Your task to perform on an android device: Go to privacy settings Image 0: 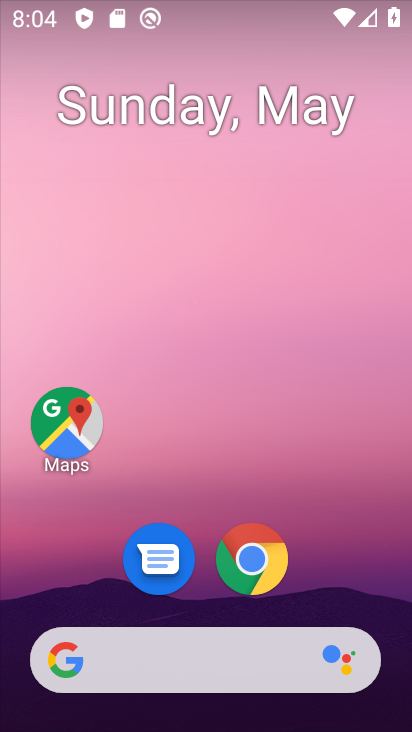
Step 0: drag from (323, 578) to (331, 120)
Your task to perform on an android device: Go to privacy settings Image 1: 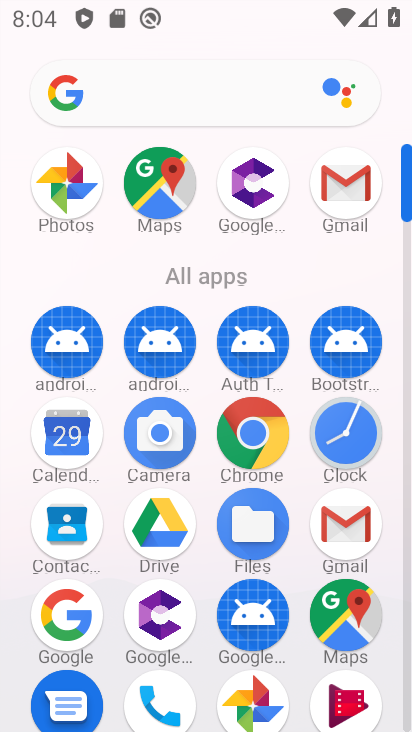
Step 1: drag from (200, 574) to (208, 178)
Your task to perform on an android device: Go to privacy settings Image 2: 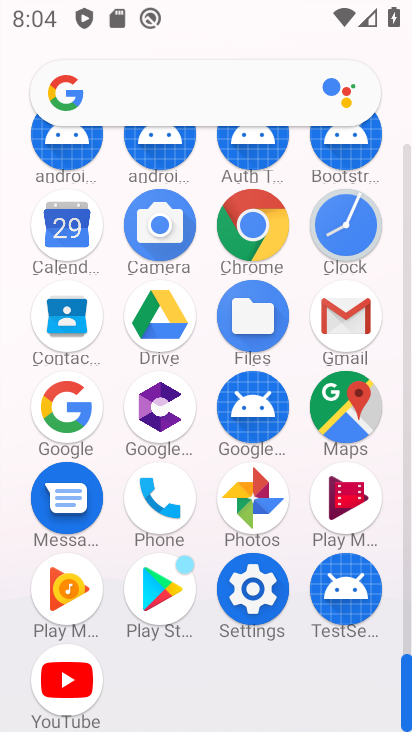
Step 2: drag from (252, 589) to (99, 229)
Your task to perform on an android device: Go to privacy settings Image 3: 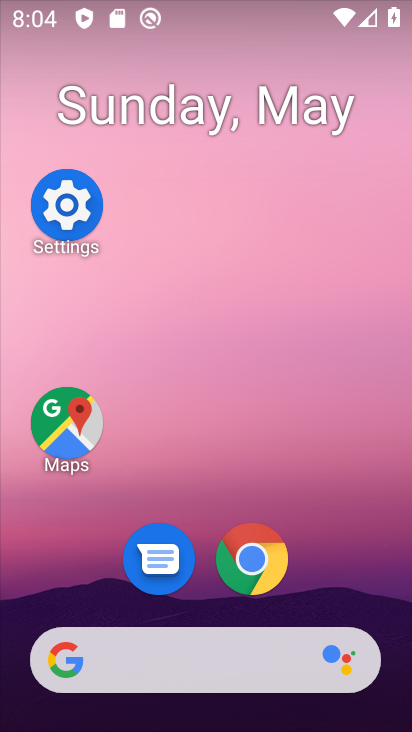
Step 3: click (93, 222)
Your task to perform on an android device: Go to privacy settings Image 4: 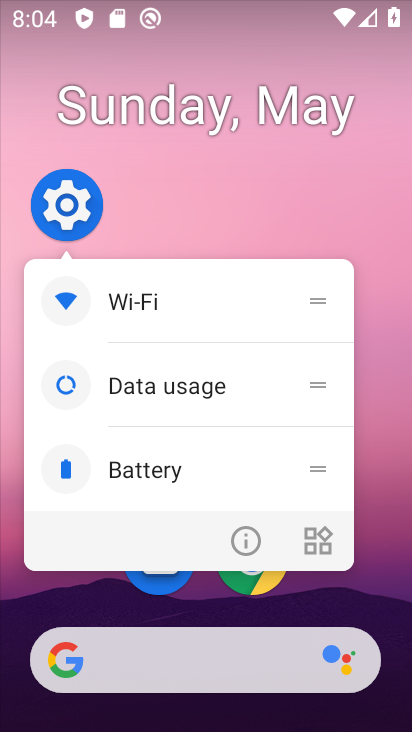
Step 4: click (97, 223)
Your task to perform on an android device: Go to privacy settings Image 5: 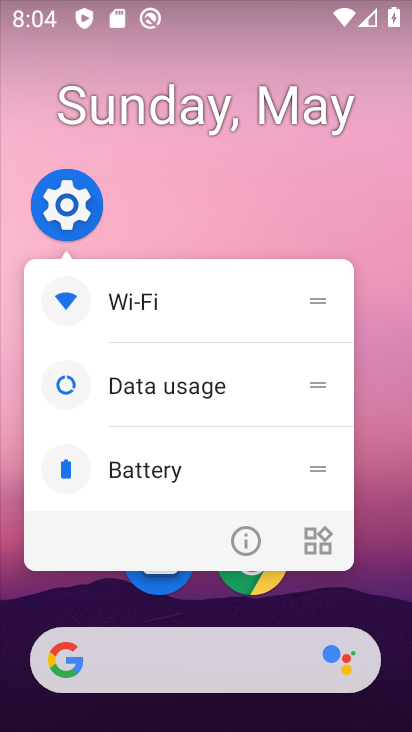
Step 5: click (78, 194)
Your task to perform on an android device: Go to privacy settings Image 6: 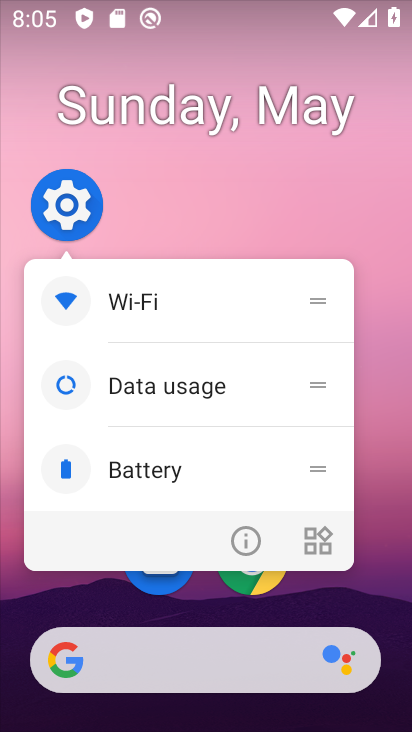
Step 6: click (69, 200)
Your task to perform on an android device: Go to privacy settings Image 7: 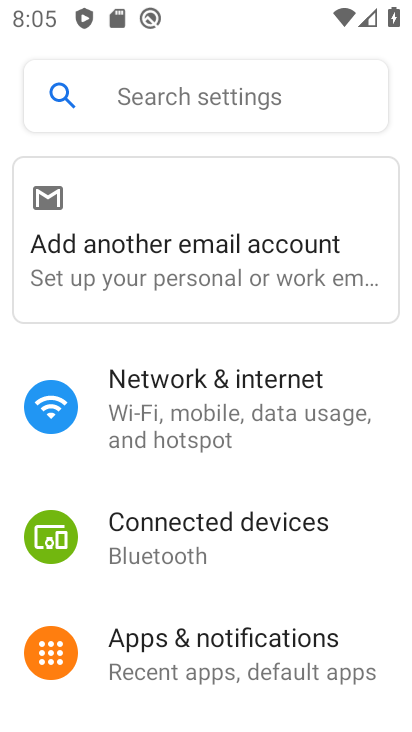
Step 7: drag from (260, 627) to (220, 323)
Your task to perform on an android device: Go to privacy settings Image 8: 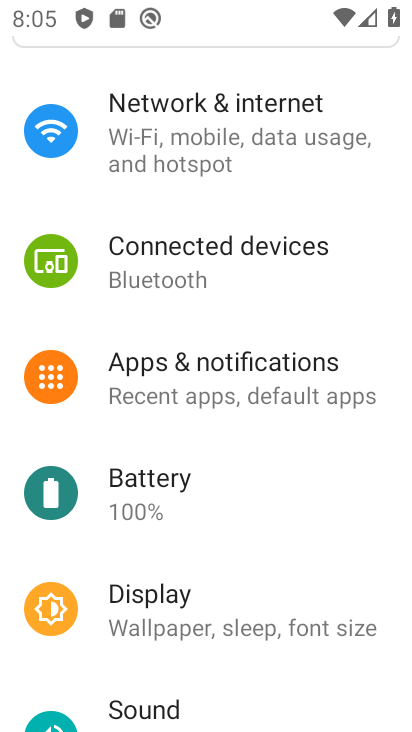
Step 8: drag from (194, 594) to (192, 191)
Your task to perform on an android device: Go to privacy settings Image 9: 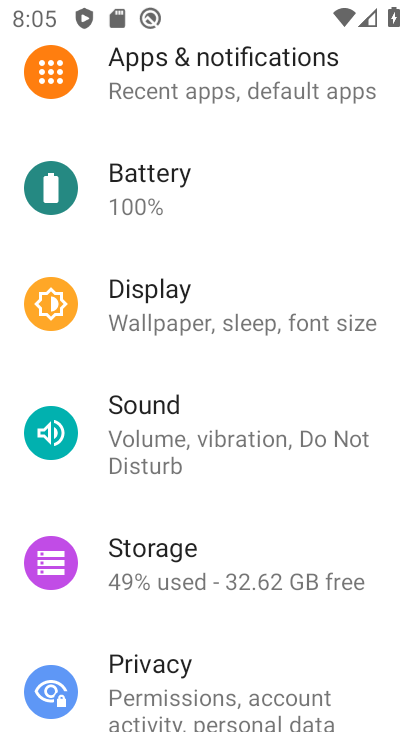
Step 9: drag from (201, 538) to (202, 199)
Your task to perform on an android device: Go to privacy settings Image 10: 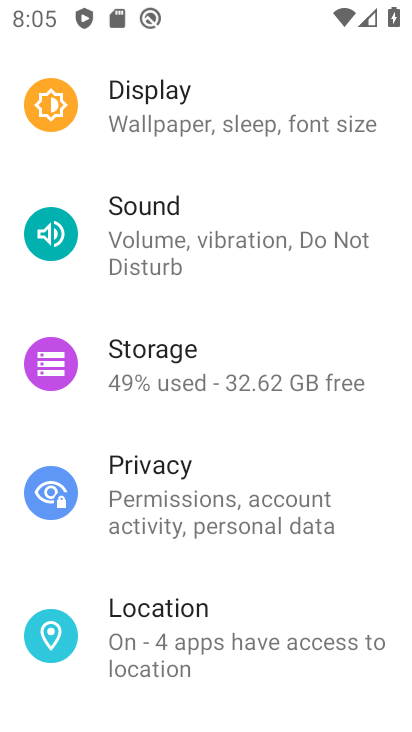
Step 10: click (218, 482)
Your task to perform on an android device: Go to privacy settings Image 11: 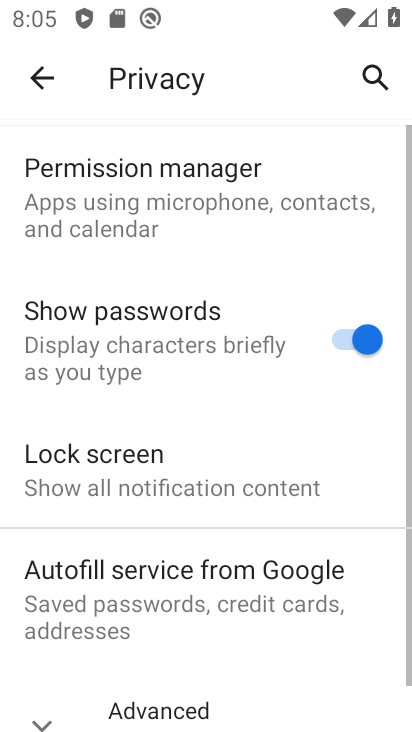
Step 11: task complete